Your task to perform on an android device: turn off improve location accuracy Image 0: 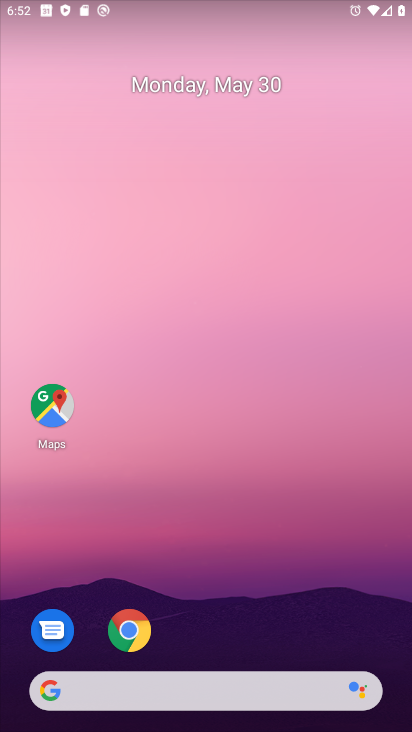
Step 0: drag from (365, 624) to (299, 3)
Your task to perform on an android device: turn off improve location accuracy Image 1: 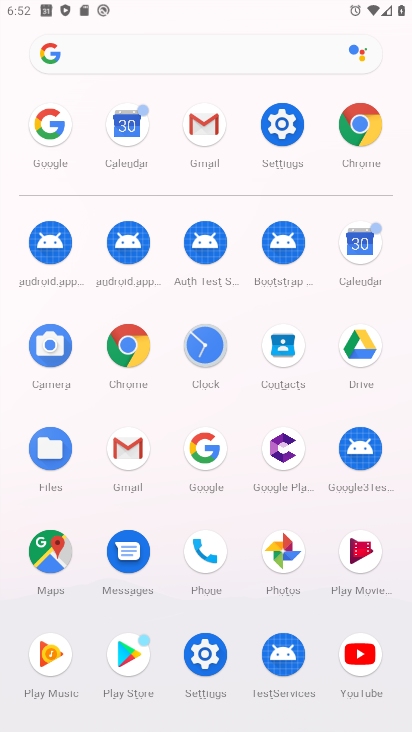
Step 1: click (286, 119)
Your task to perform on an android device: turn off improve location accuracy Image 2: 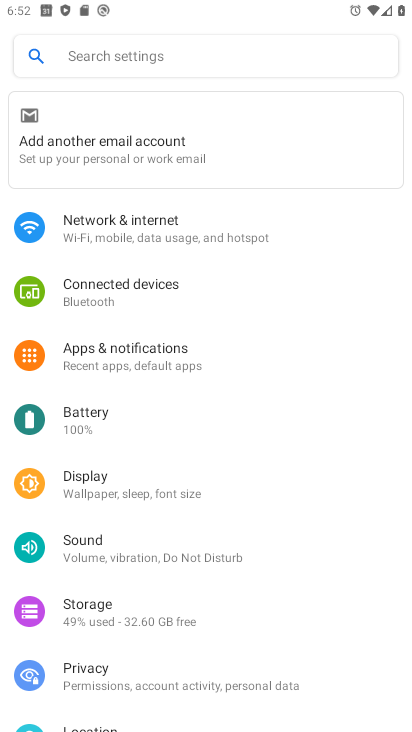
Step 2: drag from (83, 707) to (170, 310)
Your task to perform on an android device: turn off improve location accuracy Image 3: 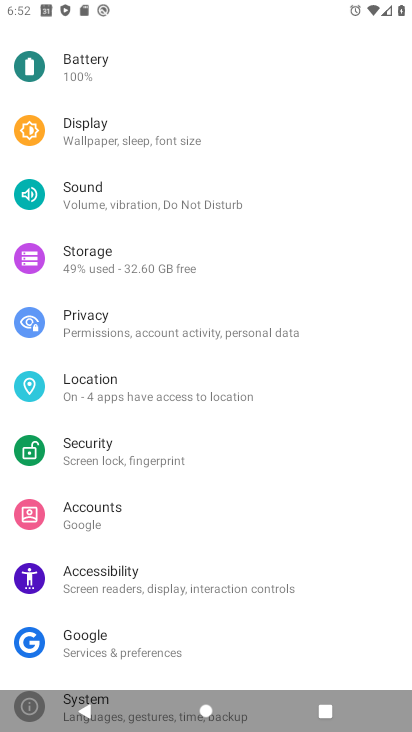
Step 3: click (86, 396)
Your task to perform on an android device: turn off improve location accuracy Image 4: 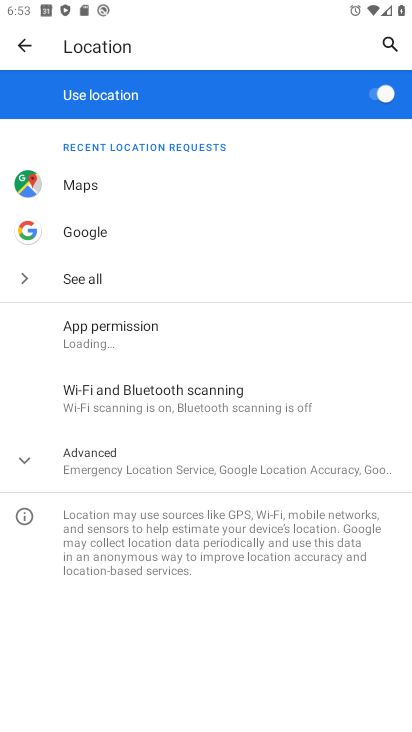
Step 4: click (121, 452)
Your task to perform on an android device: turn off improve location accuracy Image 5: 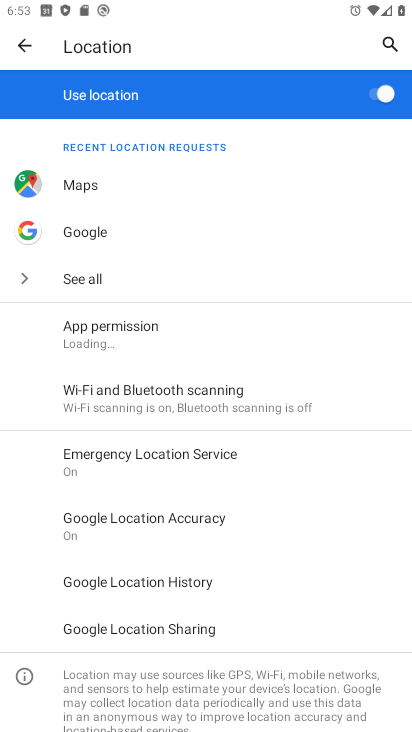
Step 5: click (189, 539)
Your task to perform on an android device: turn off improve location accuracy Image 6: 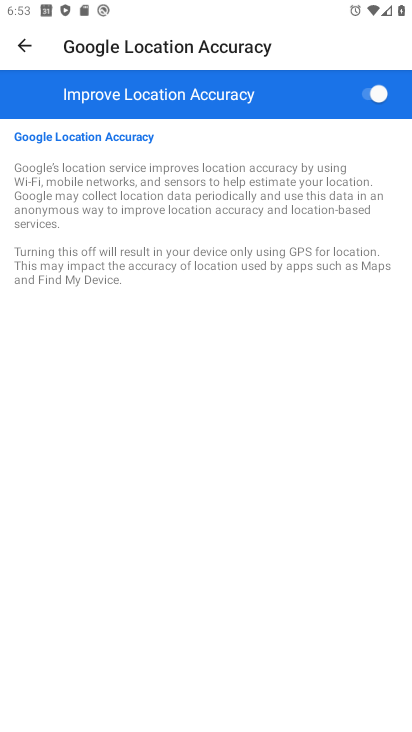
Step 6: click (352, 105)
Your task to perform on an android device: turn off improve location accuracy Image 7: 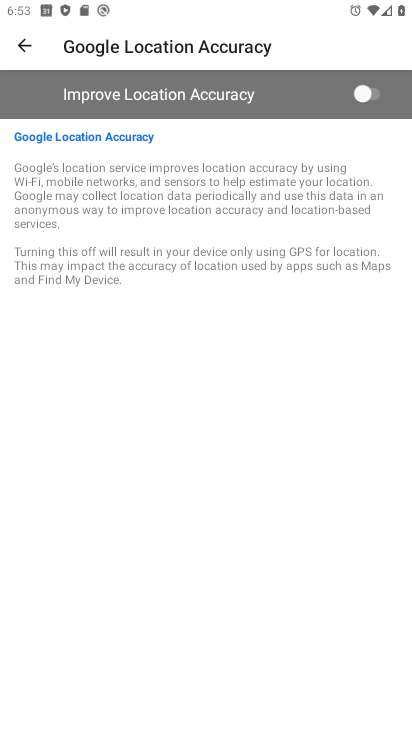
Step 7: task complete